Your task to perform on an android device: turn on sleep mode Image 0: 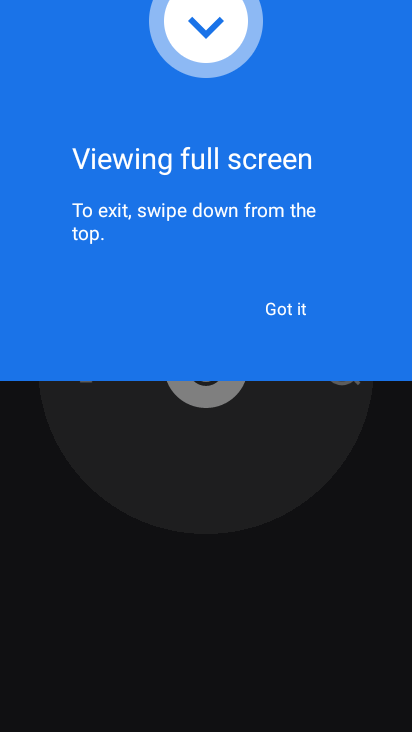
Step 0: click (293, 308)
Your task to perform on an android device: turn on sleep mode Image 1: 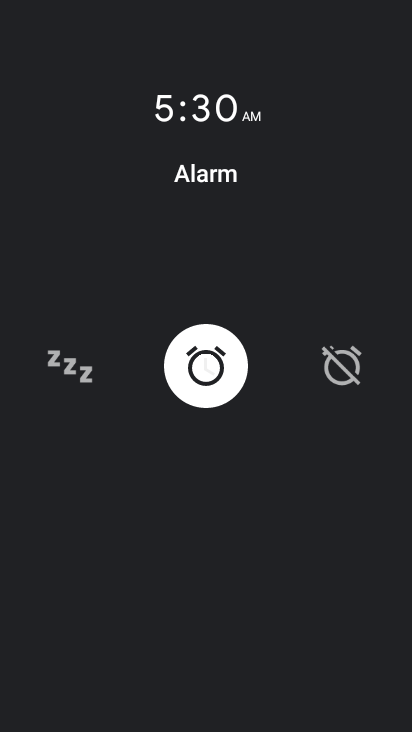
Step 1: click (344, 373)
Your task to perform on an android device: turn on sleep mode Image 2: 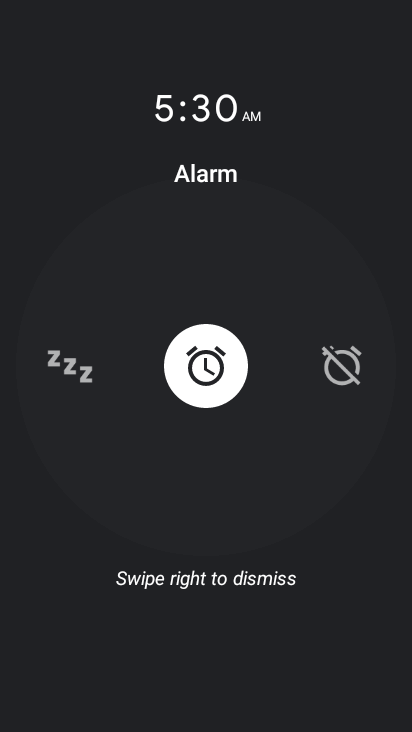
Step 2: drag from (204, 357) to (361, 341)
Your task to perform on an android device: turn on sleep mode Image 3: 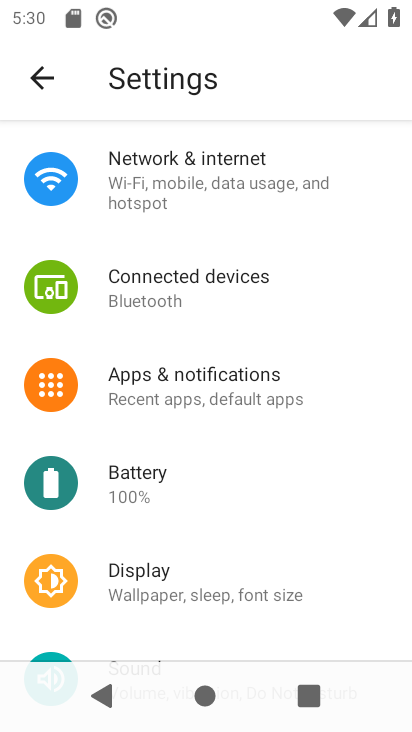
Step 3: click (208, 584)
Your task to perform on an android device: turn on sleep mode Image 4: 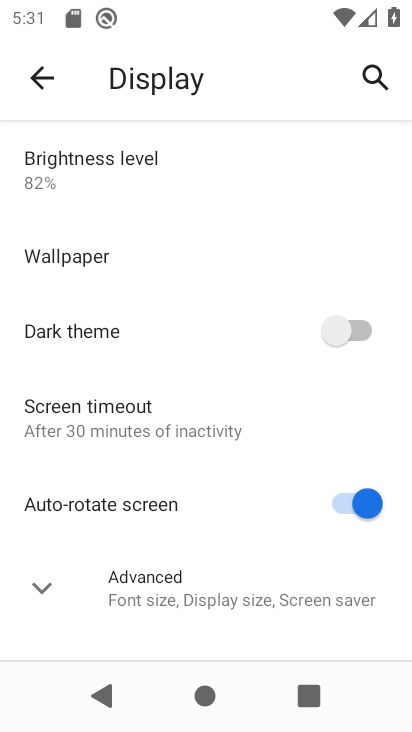
Step 4: task complete